Your task to perform on an android device: Open settings on Google Maps Image 0: 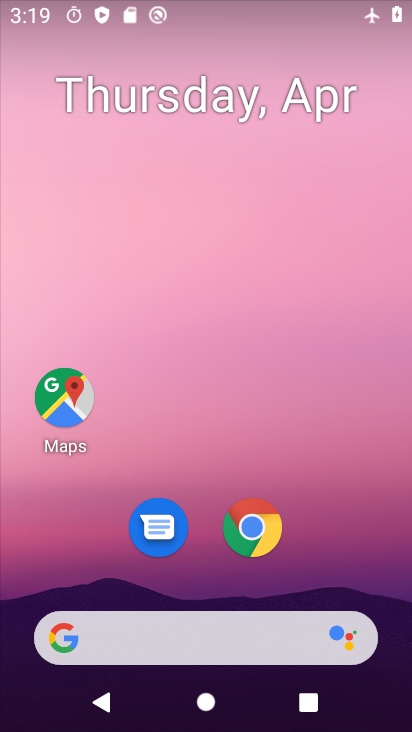
Step 0: click (64, 408)
Your task to perform on an android device: Open settings on Google Maps Image 1: 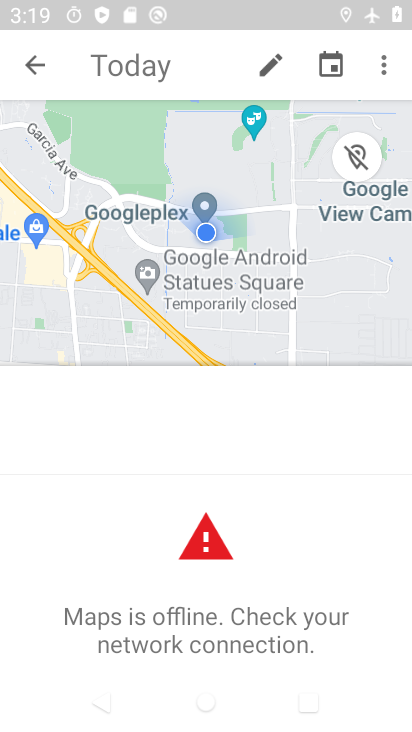
Step 1: click (32, 76)
Your task to perform on an android device: Open settings on Google Maps Image 2: 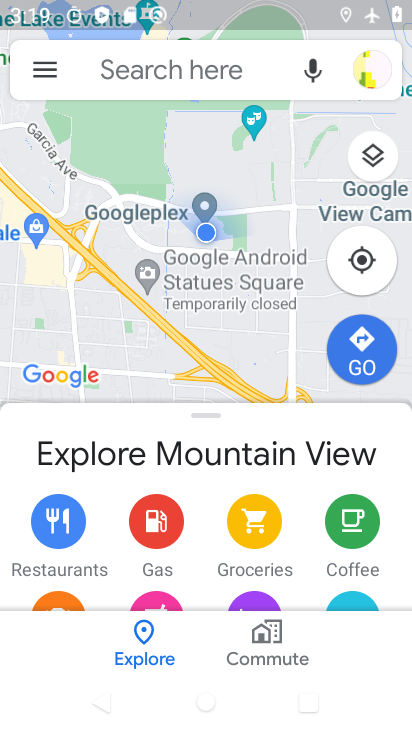
Step 2: click (38, 69)
Your task to perform on an android device: Open settings on Google Maps Image 3: 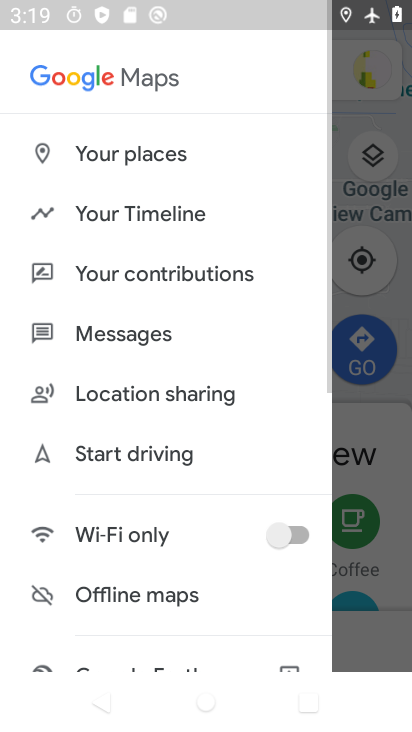
Step 3: drag from (162, 487) to (167, 116)
Your task to perform on an android device: Open settings on Google Maps Image 4: 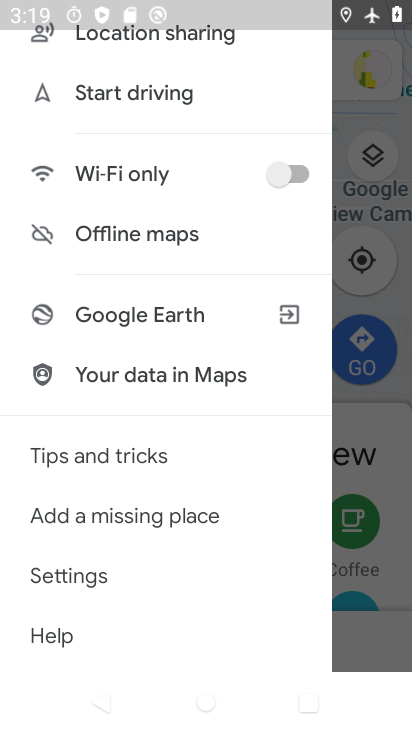
Step 4: drag from (148, 540) to (157, 324)
Your task to perform on an android device: Open settings on Google Maps Image 5: 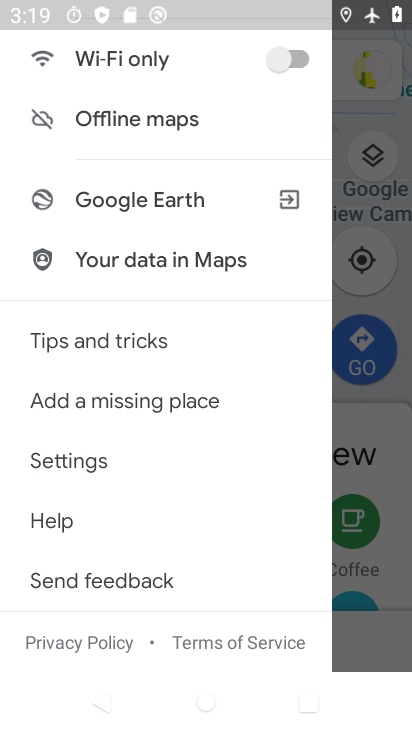
Step 5: click (86, 460)
Your task to perform on an android device: Open settings on Google Maps Image 6: 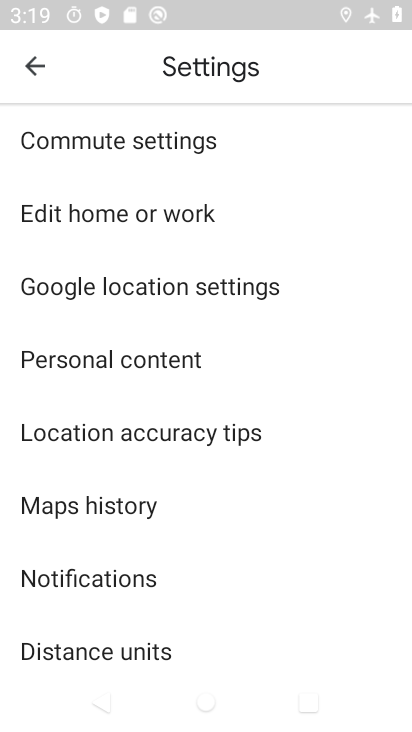
Step 6: task complete